Your task to perform on an android device: Set an alarm for 2pm Image 0: 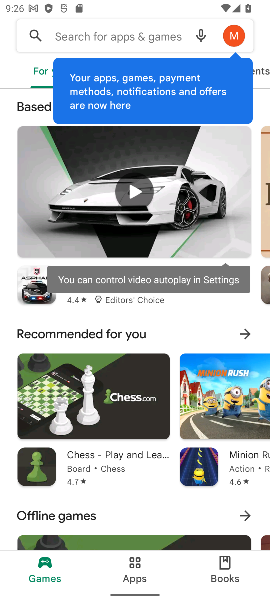
Step 0: press home button
Your task to perform on an android device: Set an alarm for 2pm Image 1: 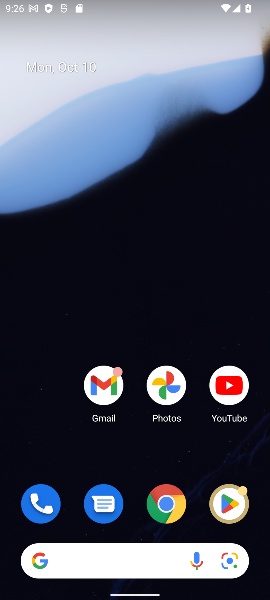
Step 1: drag from (197, 524) to (174, 144)
Your task to perform on an android device: Set an alarm for 2pm Image 2: 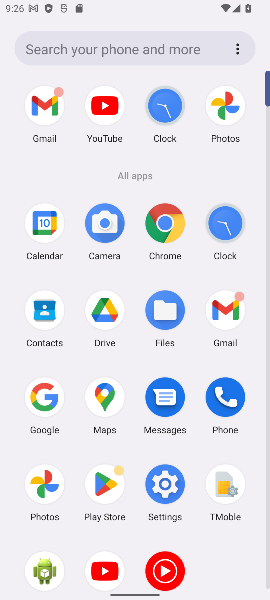
Step 2: click (226, 222)
Your task to perform on an android device: Set an alarm for 2pm Image 3: 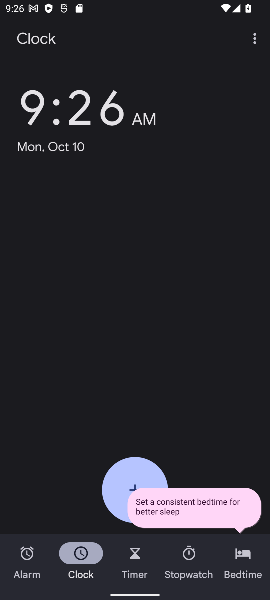
Step 3: click (26, 563)
Your task to perform on an android device: Set an alarm for 2pm Image 4: 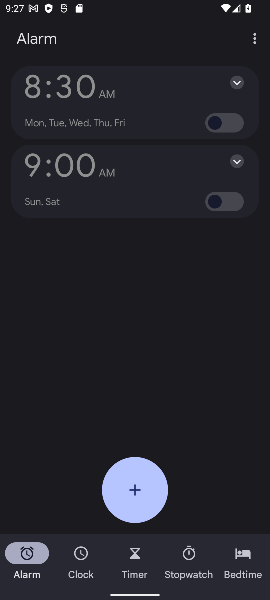
Step 4: click (54, 104)
Your task to perform on an android device: Set an alarm for 2pm Image 5: 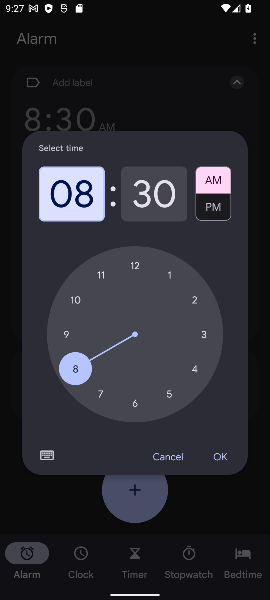
Step 5: click (196, 301)
Your task to perform on an android device: Set an alarm for 2pm Image 6: 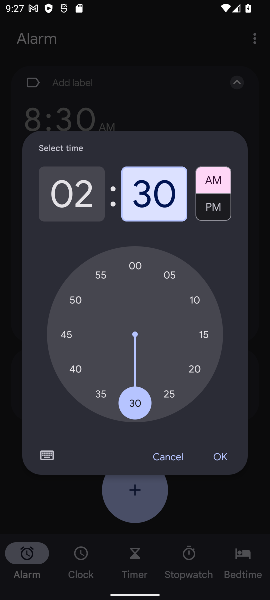
Step 6: click (133, 263)
Your task to perform on an android device: Set an alarm for 2pm Image 7: 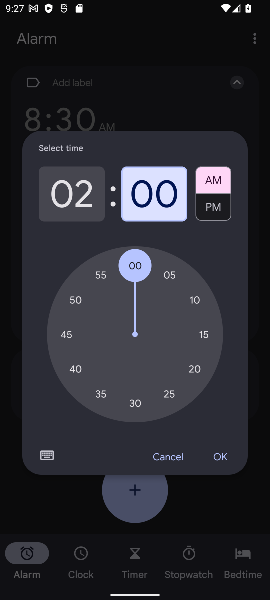
Step 7: click (211, 203)
Your task to perform on an android device: Set an alarm for 2pm Image 8: 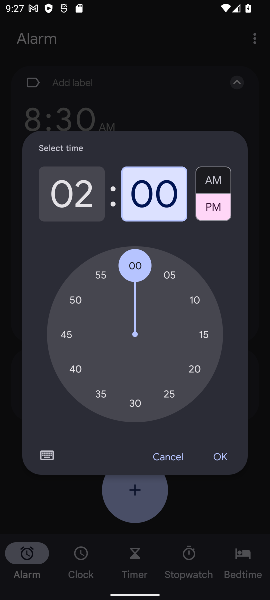
Step 8: click (220, 456)
Your task to perform on an android device: Set an alarm for 2pm Image 9: 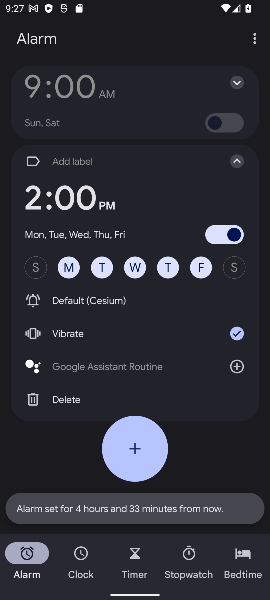
Step 9: click (238, 270)
Your task to perform on an android device: Set an alarm for 2pm Image 10: 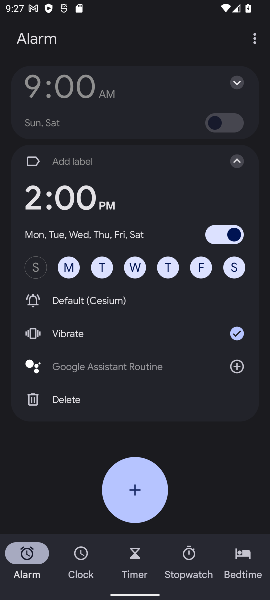
Step 10: task complete